Your task to perform on an android device: Go to Google maps Image 0: 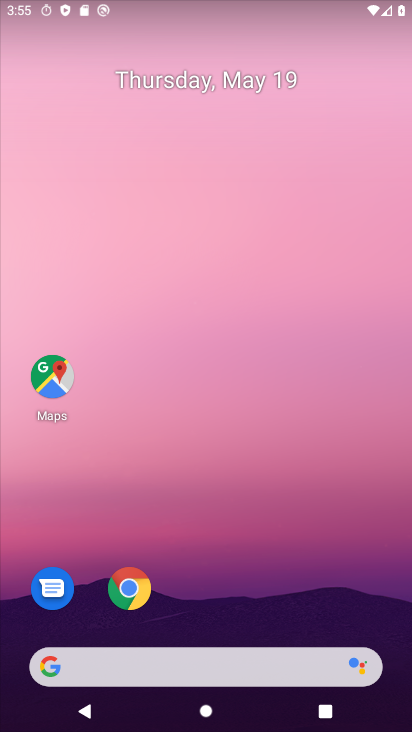
Step 0: click (38, 383)
Your task to perform on an android device: Go to Google maps Image 1: 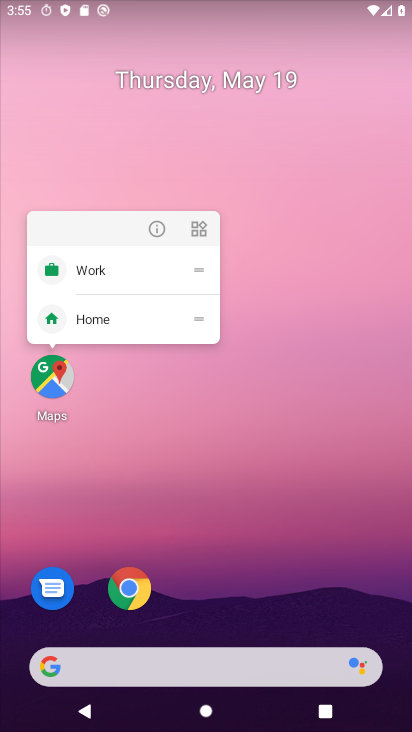
Step 1: click (50, 379)
Your task to perform on an android device: Go to Google maps Image 2: 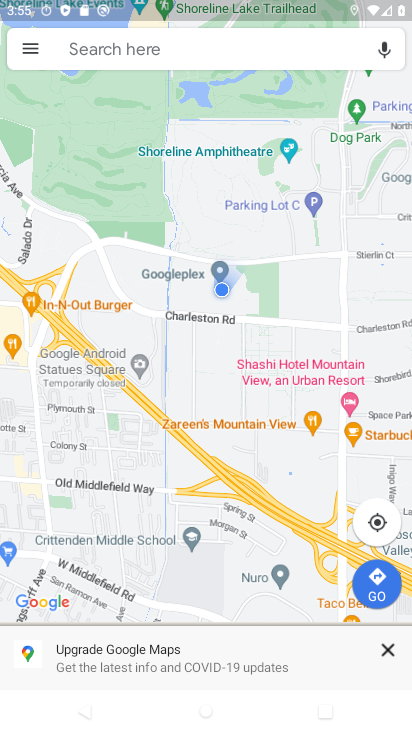
Step 2: click (387, 646)
Your task to perform on an android device: Go to Google maps Image 3: 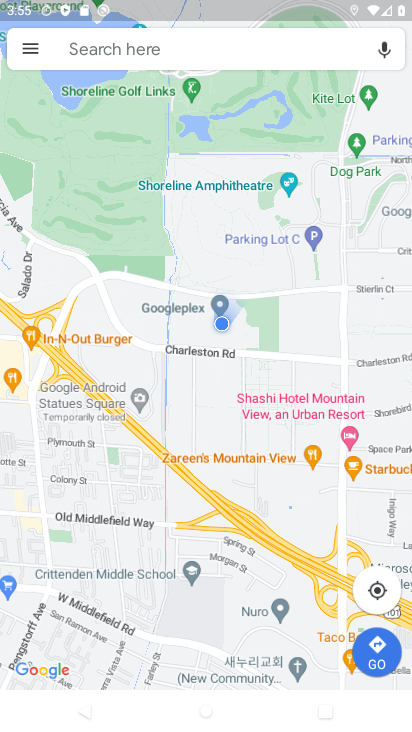
Step 3: task complete